Your task to perform on an android device: search for starred emails in the gmail app Image 0: 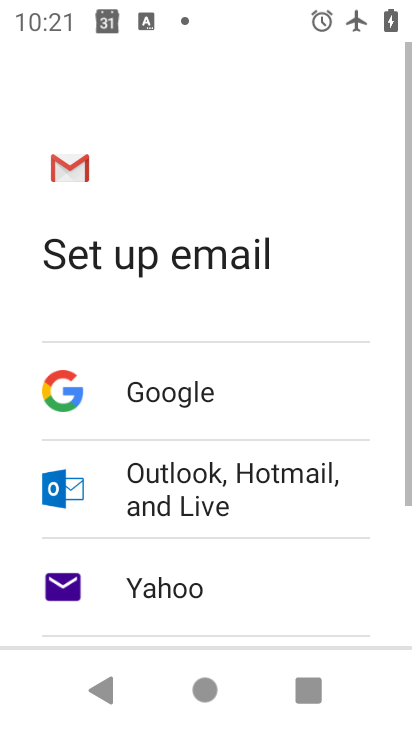
Step 0: press home button
Your task to perform on an android device: search for starred emails in the gmail app Image 1: 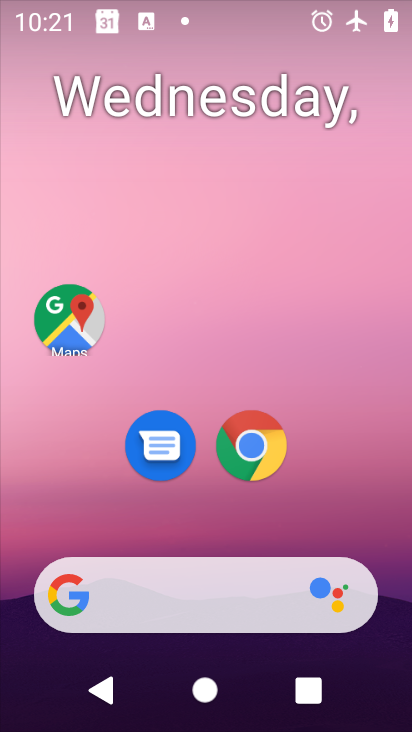
Step 1: drag from (345, 549) to (294, 87)
Your task to perform on an android device: search for starred emails in the gmail app Image 2: 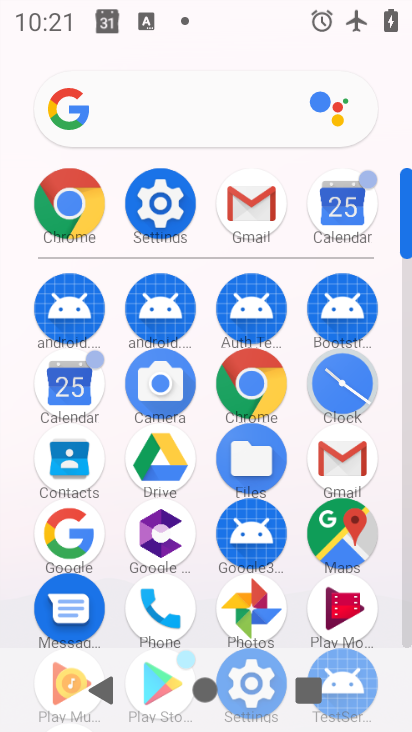
Step 2: click (251, 206)
Your task to perform on an android device: search for starred emails in the gmail app Image 3: 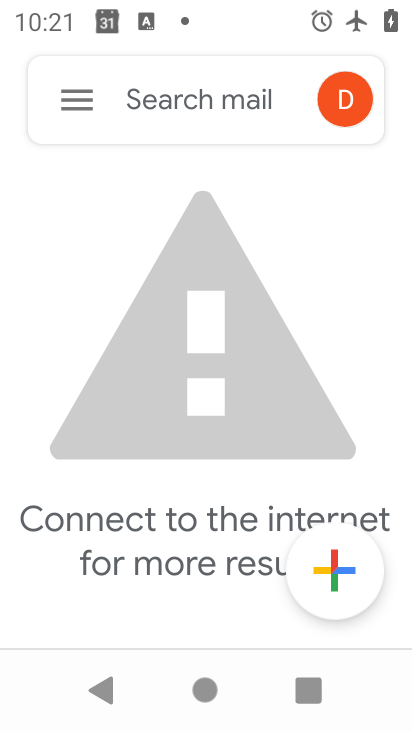
Step 3: click (86, 100)
Your task to perform on an android device: search for starred emails in the gmail app Image 4: 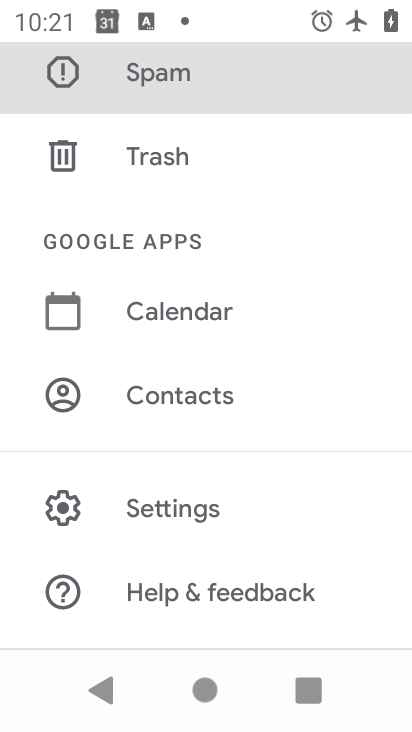
Step 4: drag from (218, 558) to (239, 143)
Your task to perform on an android device: search for starred emails in the gmail app Image 5: 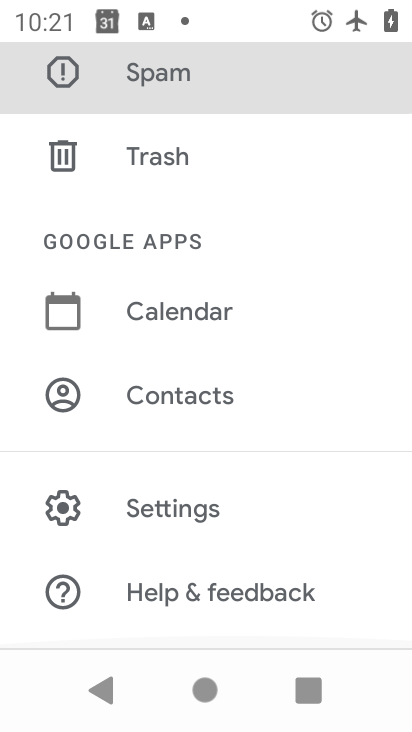
Step 5: drag from (239, 158) to (292, 508)
Your task to perform on an android device: search for starred emails in the gmail app Image 6: 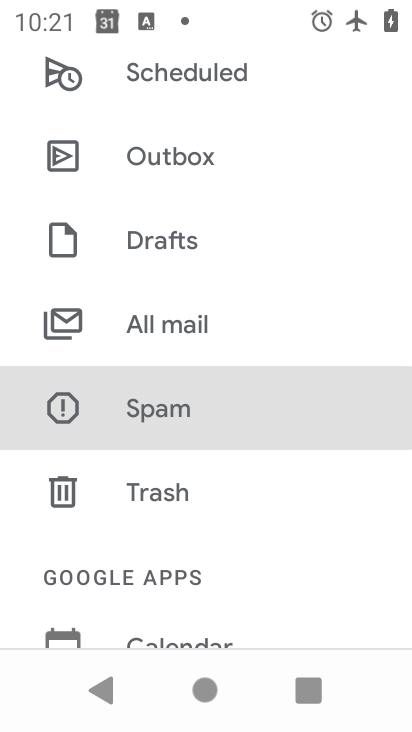
Step 6: drag from (231, 242) to (277, 553)
Your task to perform on an android device: search for starred emails in the gmail app Image 7: 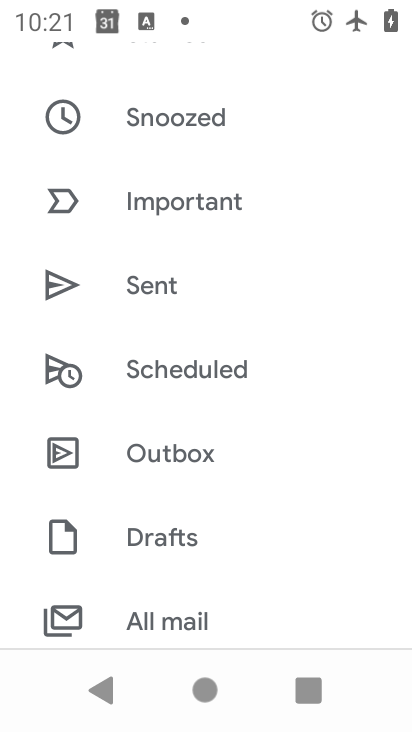
Step 7: drag from (166, 208) to (238, 589)
Your task to perform on an android device: search for starred emails in the gmail app Image 8: 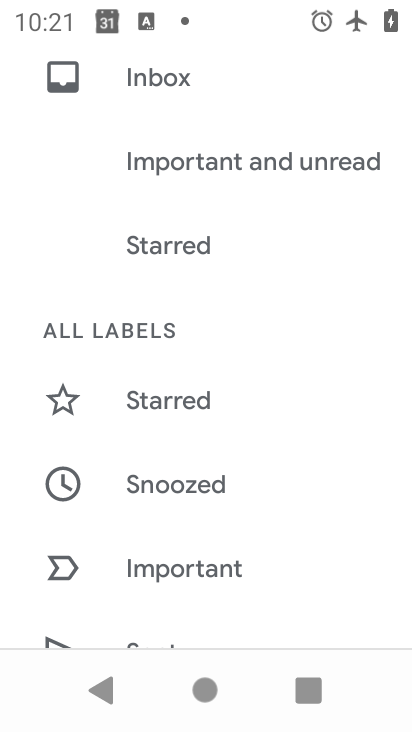
Step 8: click (165, 256)
Your task to perform on an android device: search for starred emails in the gmail app Image 9: 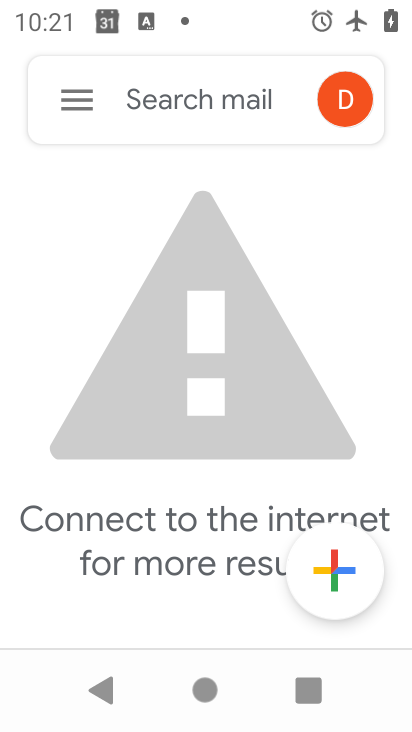
Step 9: task complete